Your task to perform on an android device: Go to Android settings Image 0: 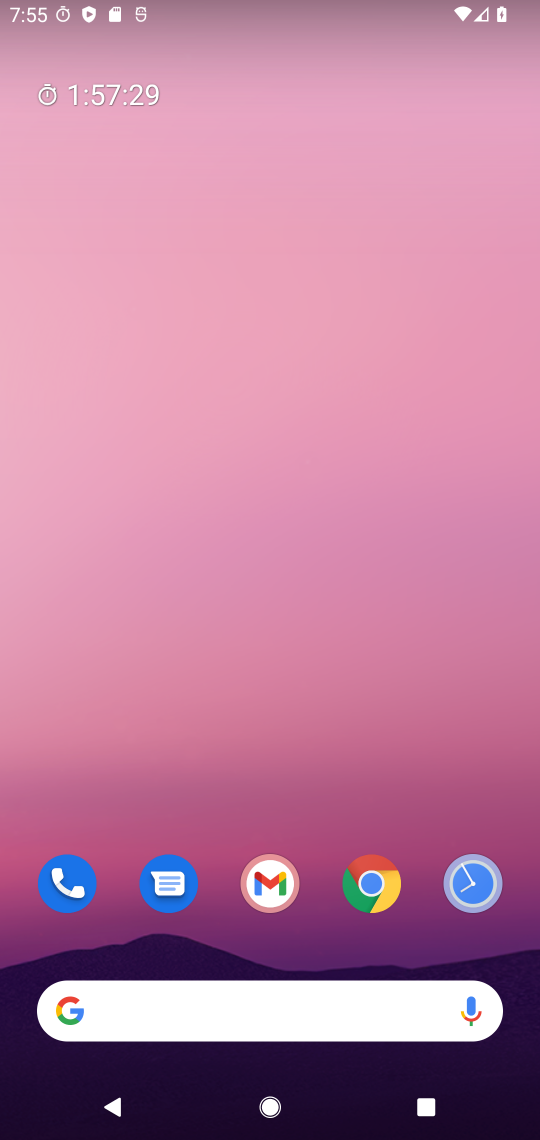
Step 0: drag from (209, 791) to (217, 22)
Your task to perform on an android device: Go to Android settings Image 1: 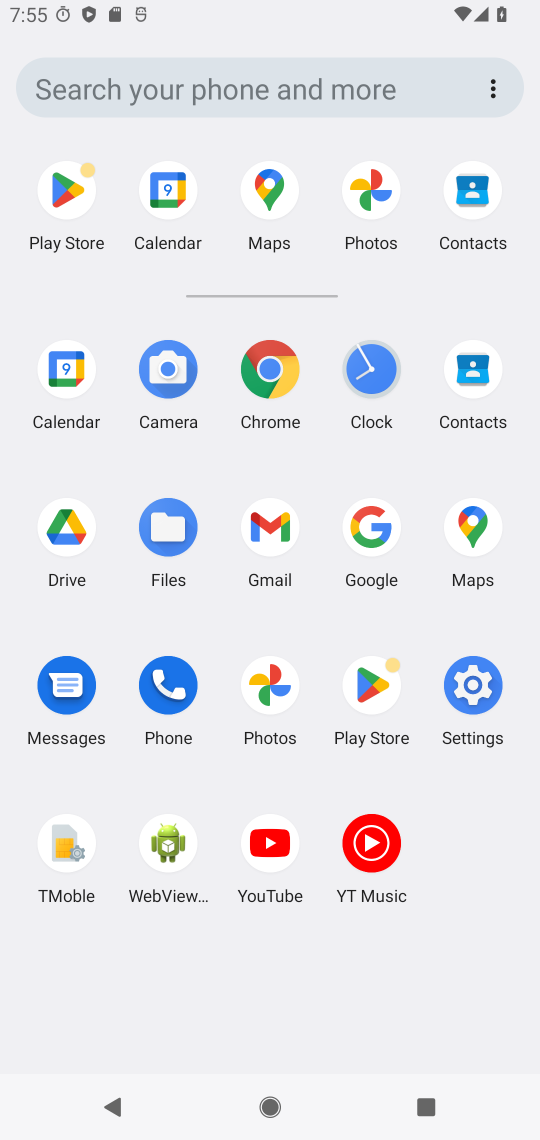
Step 1: click (479, 683)
Your task to perform on an android device: Go to Android settings Image 2: 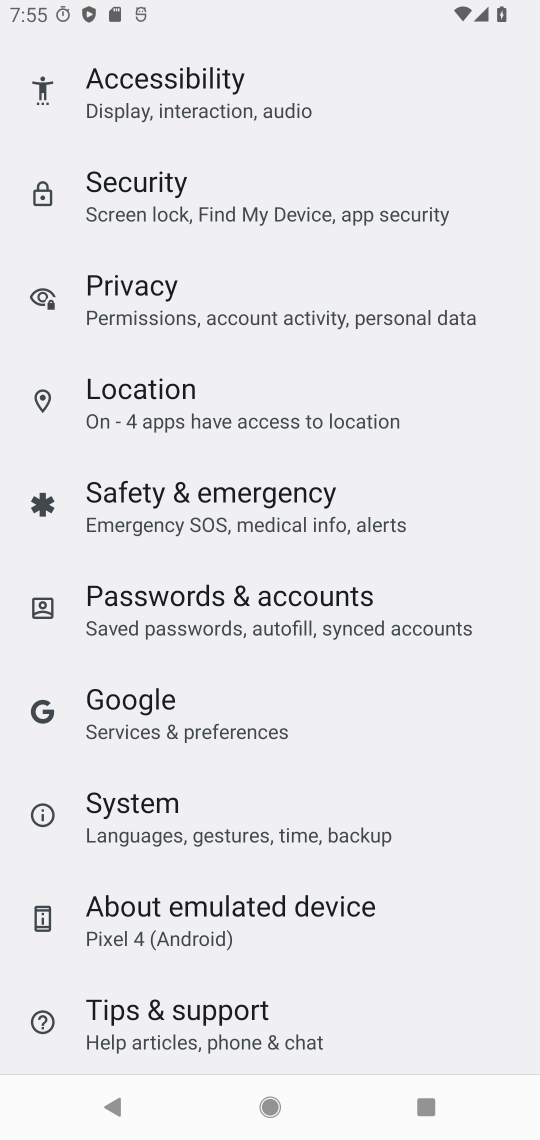
Step 2: task complete